Your task to perform on an android device: Open the phone app and click the voicemail tab. Image 0: 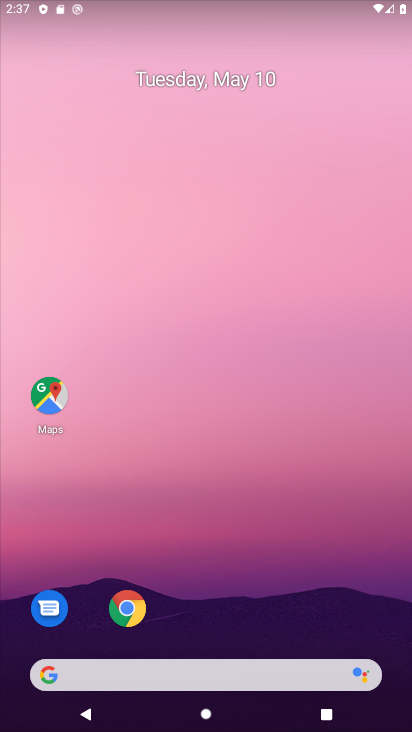
Step 0: drag from (389, 652) to (321, 216)
Your task to perform on an android device: Open the phone app and click the voicemail tab. Image 1: 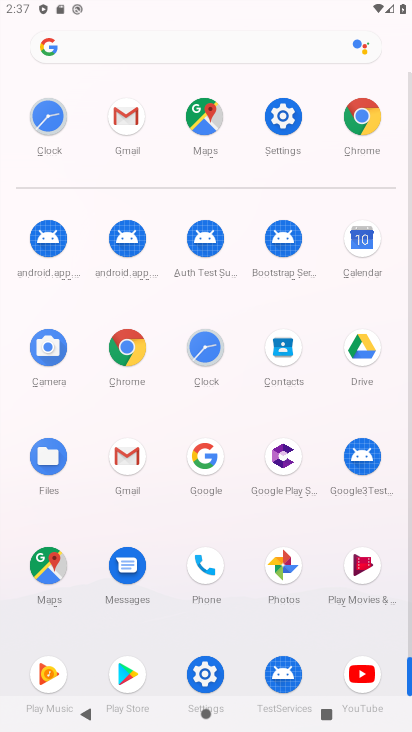
Step 1: click (203, 564)
Your task to perform on an android device: Open the phone app and click the voicemail tab. Image 2: 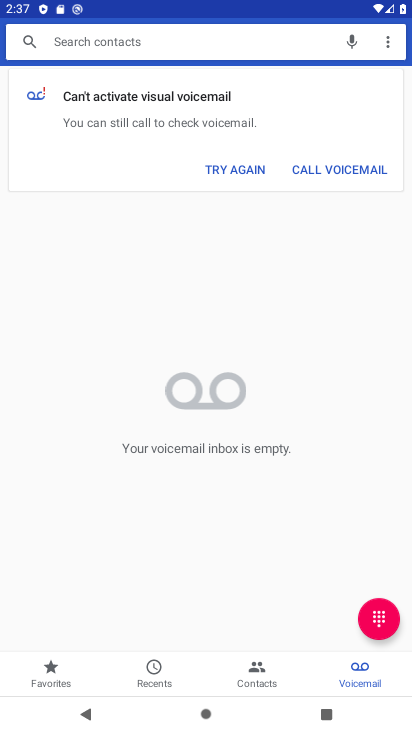
Step 2: task complete